Your task to perform on an android device: turn on notifications settings in the gmail app Image 0: 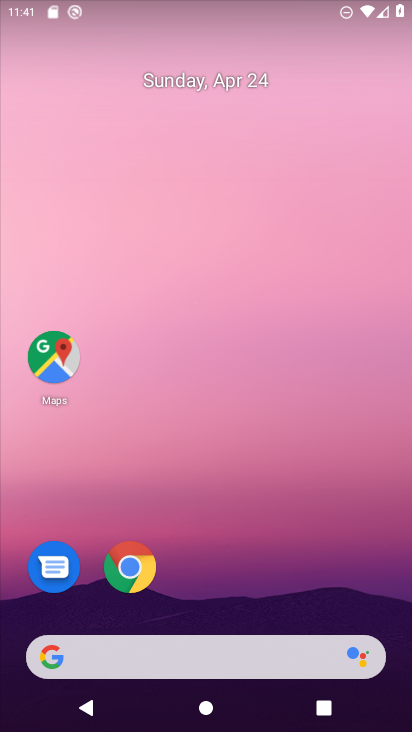
Step 0: drag from (153, 609) to (171, 74)
Your task to perform on an android device: turn on notifications settings in the gmail app Image 1: 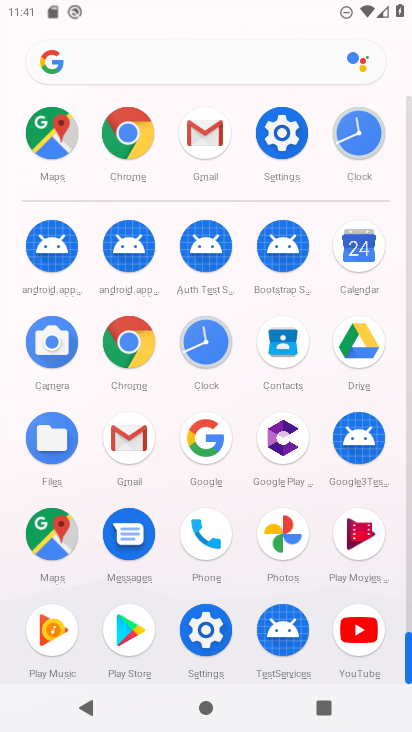
Step 1: drag from (167, 268) to (104, 403)
Your task to perform on an android device: turn on notifications settings in the gmail app Image 2: 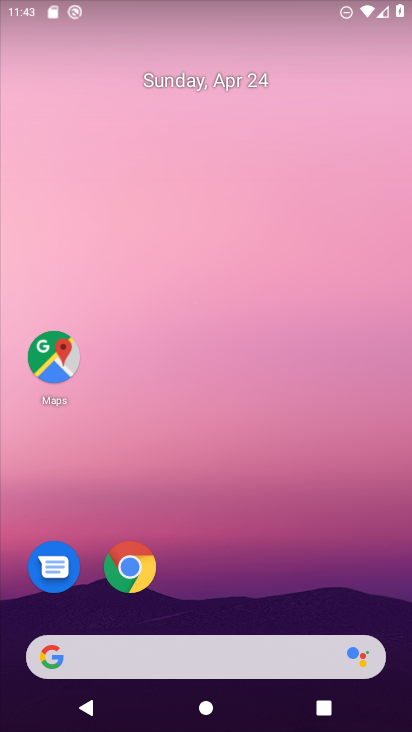
Step 2: drag from (132, 610) to (70, 24)
Your task to perform on an android device: turn on notifications settings in the gmail app Image 3: 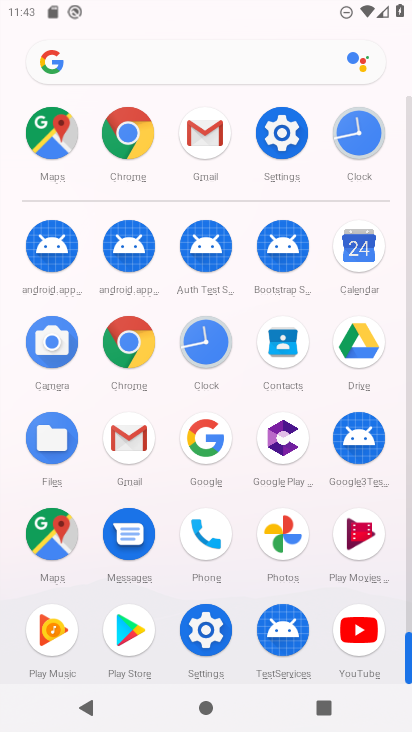
Step 3: click (131, 442)
Your task to perform on an android device: turn on notifications settings in the gmail app Image 4: 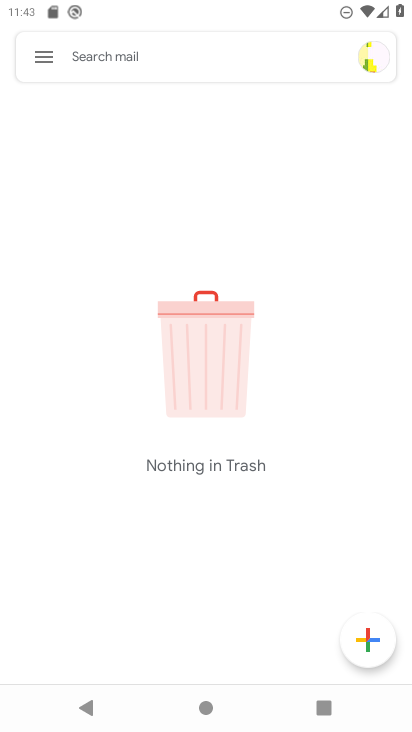
Step 4: task complete